Your task to perform on an android device: Open Reddit.com Image 0: 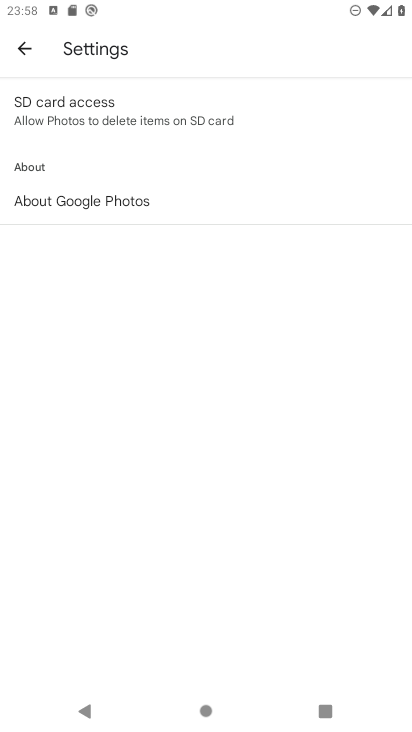
Step 0: press home button
Your task to perform on an android device: Open Reddit.com Image 1: 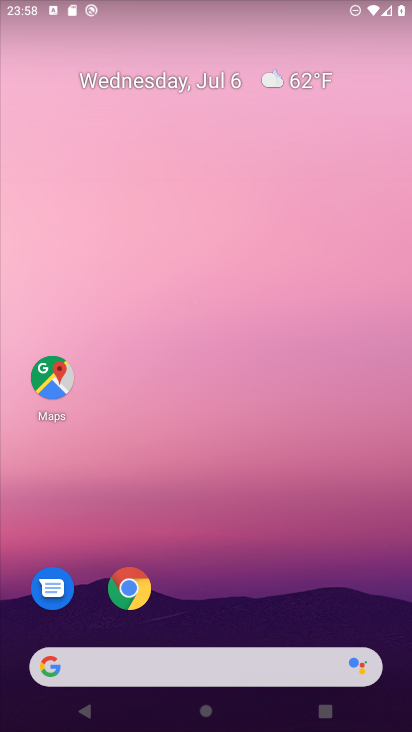
Step 1: click (131, 590)
Your task to perform on an android device: Open Reddit.com Image 2: 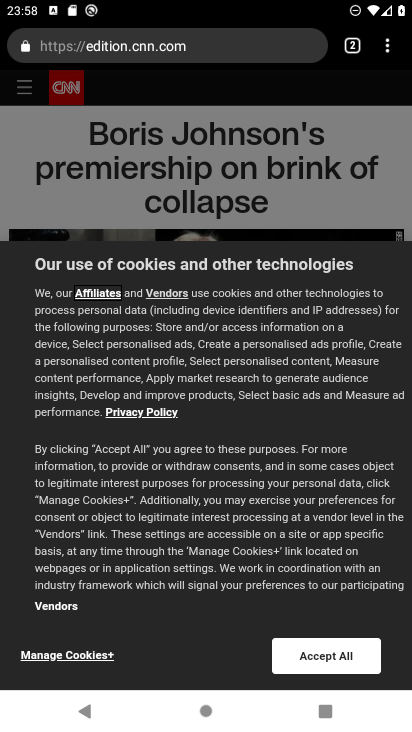
Step 2: click (213, 45)
Your task to perform on an android device: Open Reddit.com Image 3: 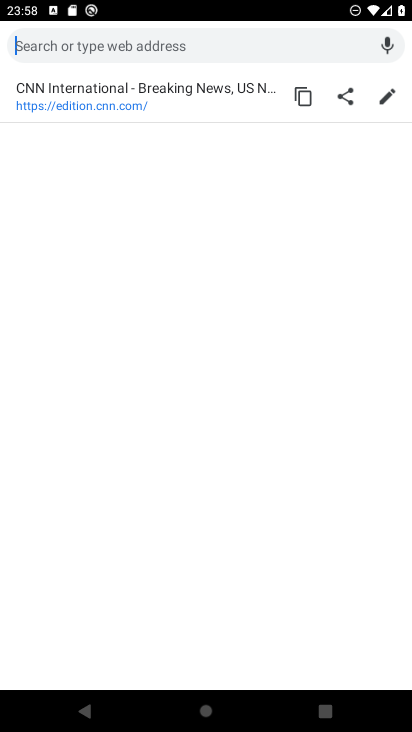
Step 3: type "Reddit.com"
Your task to perform on an android device: Open Reddit.com Image 4: 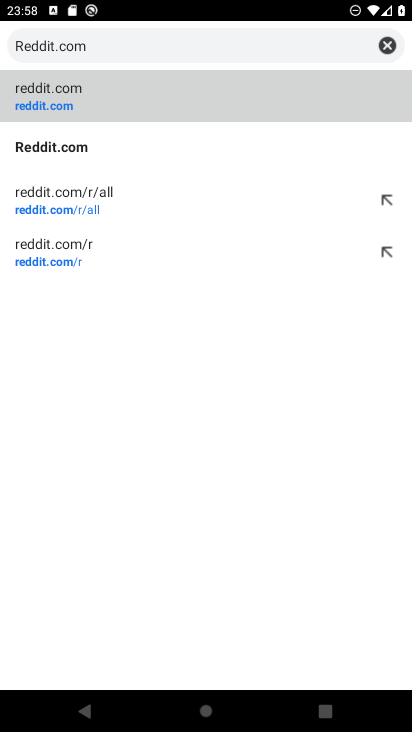
Step 4: click (54, 81)
Your task to perform on an android device: Open Reddit.com Image 5: 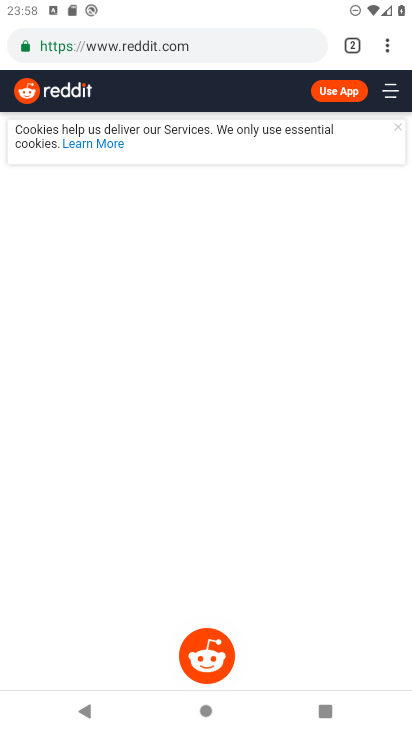
Step 5: task complete